Your task to perform on an android device: turn off notifications settings in the gmail app Image 0: 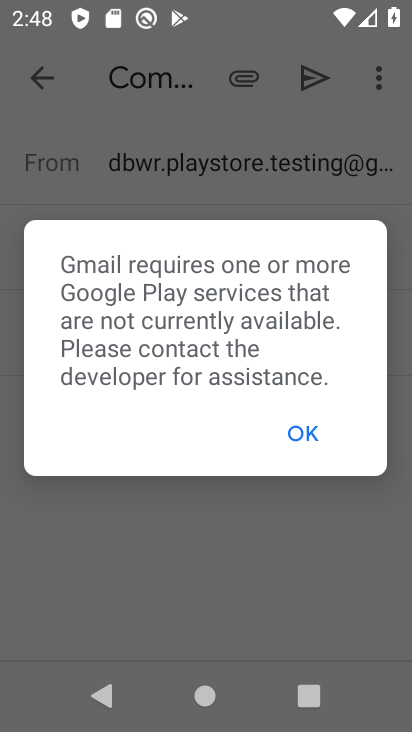
Step 0: click (301, 428)
Your task to perform on an android device: turn off notifications settings in the gmail app Image 1: 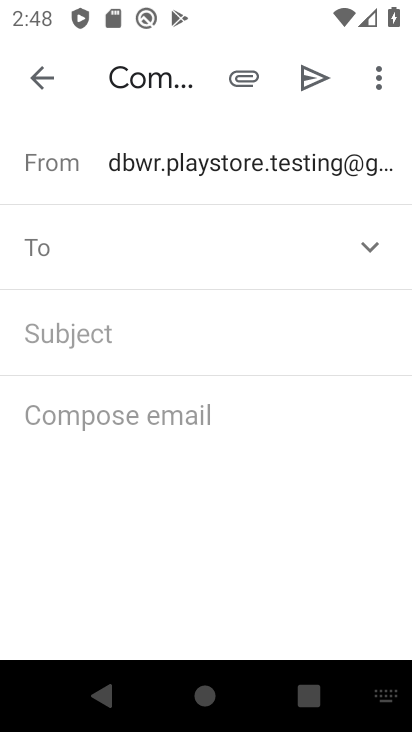
Step 1: click (42, 75)
Your task to perform on an android device: turn off notifications settings in the gmail app Image 2: 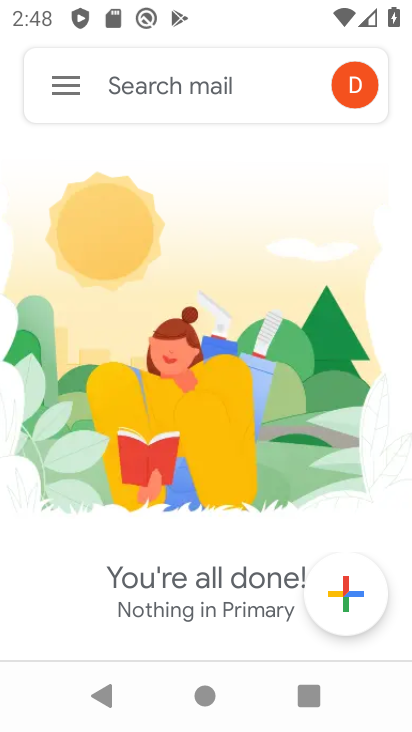
Step 2: press back button
Your task to perform on an android device: turn off notifications settings in the gmail app Image 3: 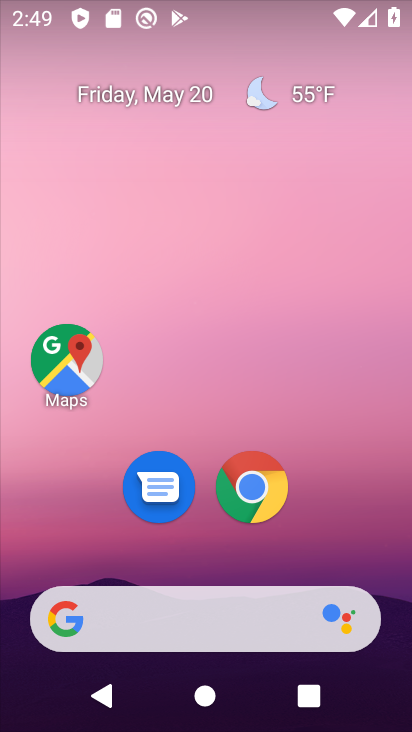
Step 3: drag from (360, 663) to (196, 62)
Your task to perform on an android device: turn off notifications settings in the gmail app Image 4: 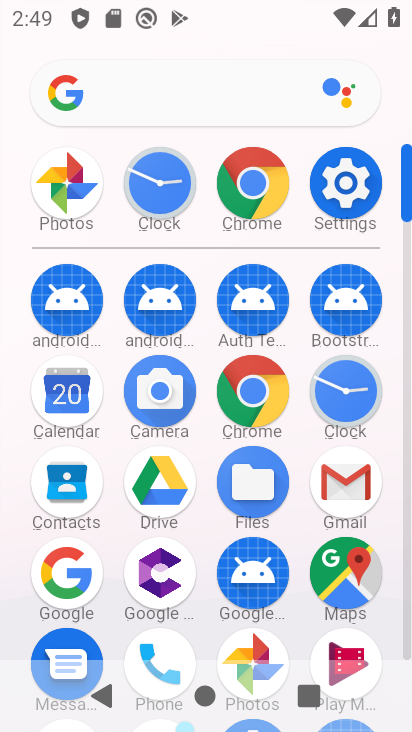
Step 4: click (349, 484)
Your task to perform on an android device: turn off notifications settings in the gmail app Image 5: 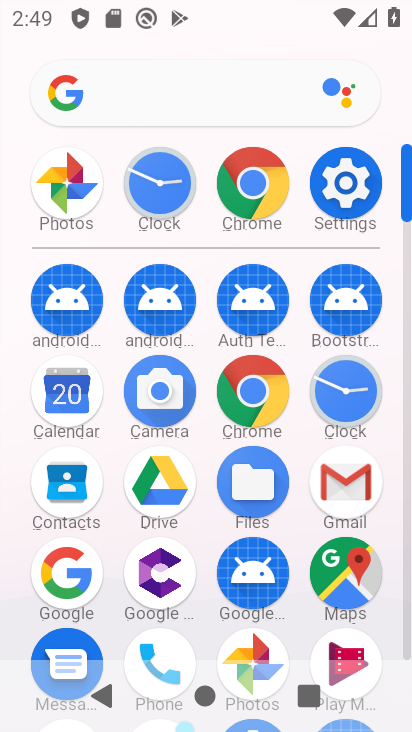
Step 5: click (350, 483)
Your task to perform on an android device: turn off notifications settings in the gmail app Image 6: 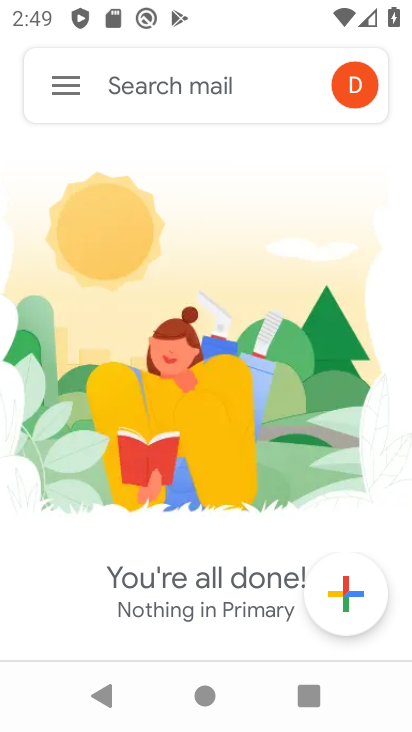
Step 6: click (70, 82)
Your task to perform on an android device: turn off notifications settings in the gmail app Image 7: 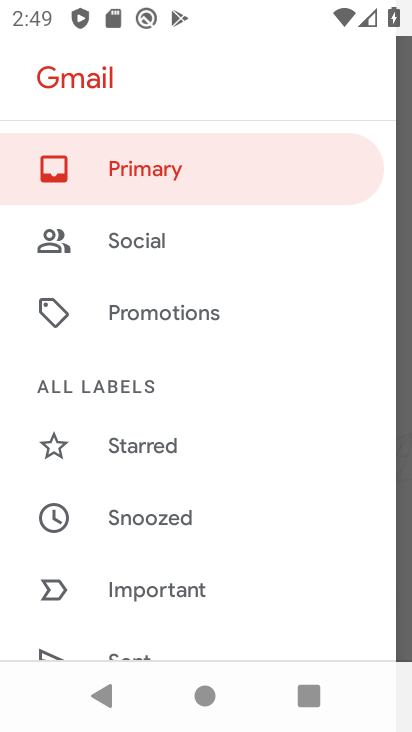
Step 7: drag from (232, 556) to (284, 125)
Your task to perform on an android device: turn off notifications settings in the gmail app Image 8: 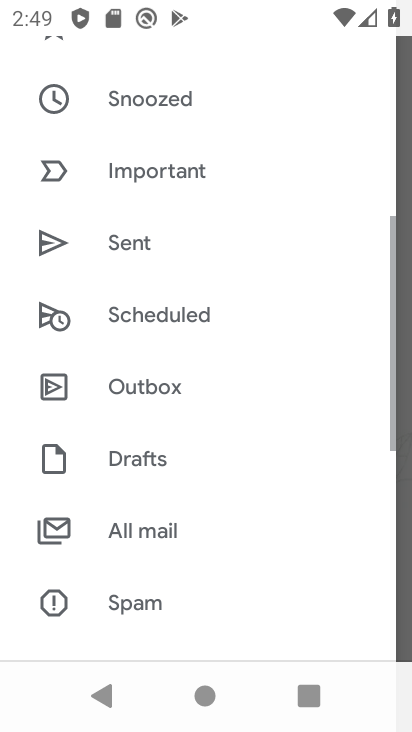
Step 8: drag from (357, 445) to (291, 7)
Your task to perform on an android device: turn off notifications settings in the gmail app Image 9: 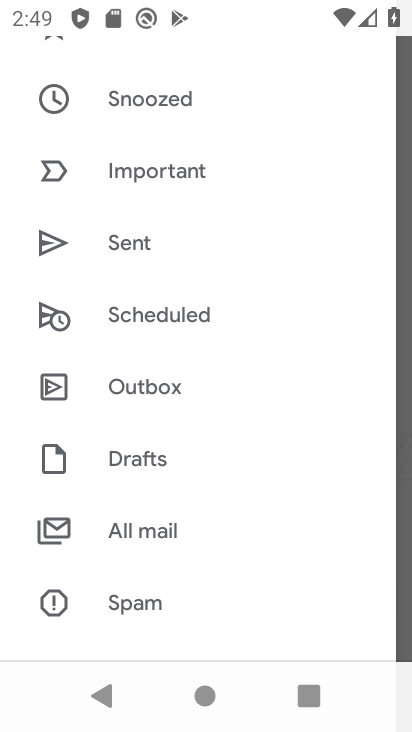
Step 9: press back button
Your task to perform on an android device: turn off notifications settings in the gmail app Image 10: 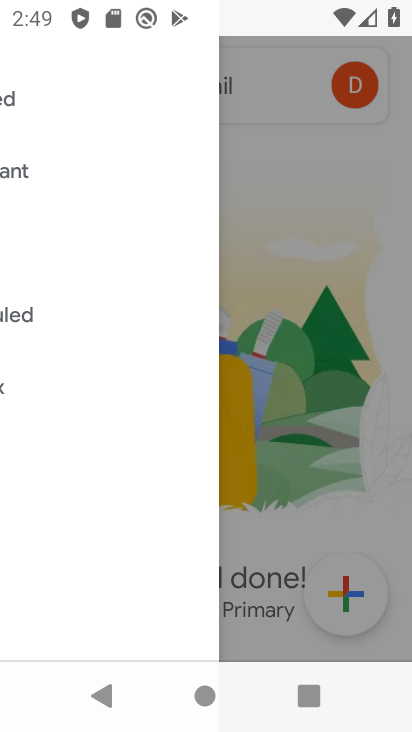
Step 10: press back button
Your task to perform on an android device: turn off notifications settings in the gmail app Image 11: 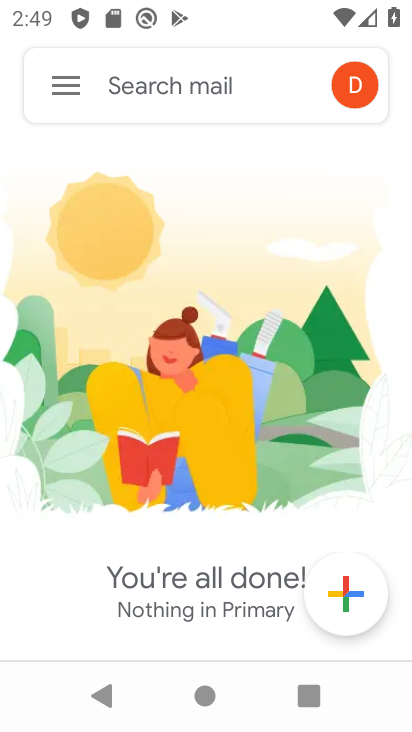
Step 11: press back button
Your task to perform on an android device: turn off notifications settings in the gmail app Image 12: 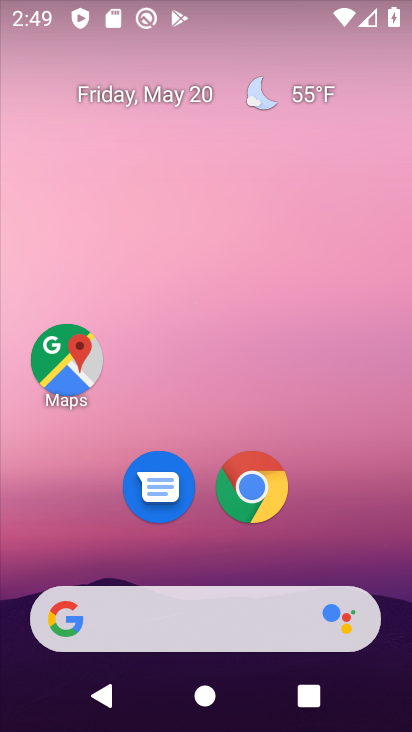
Step 12: drag from (282, 659) to (167, 24)
Your task to perform on an android device: turn off notifications settings in the gmail app Image 13: 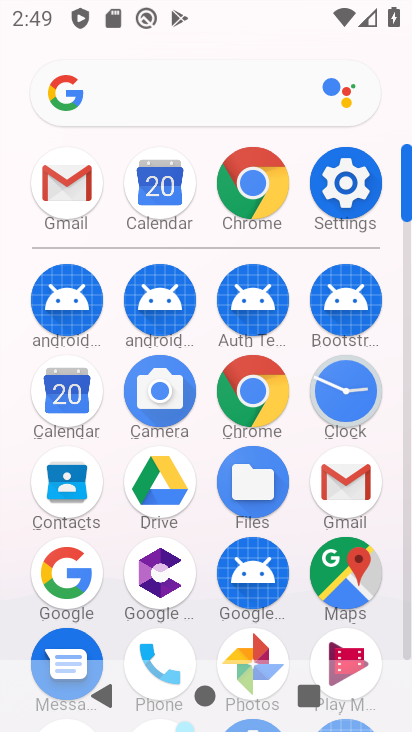
Step 13: click (339, 207)
Your task to perform on an android device: turn off notifications settings in the gmail app Image 14: 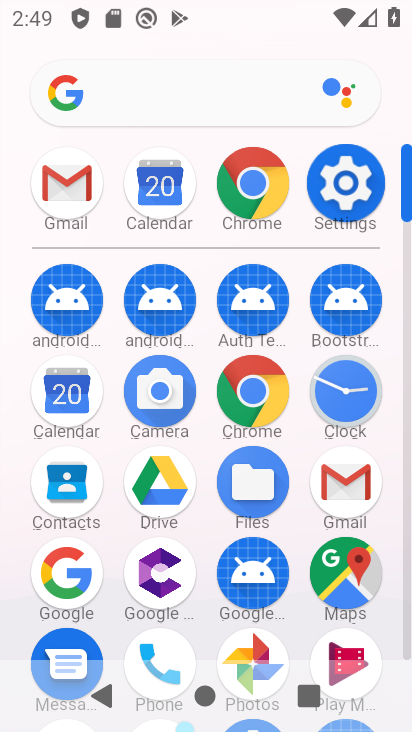
Step 14: click (346, 204)
Your task to perform on an android device: turn off notifications settings in the gmail app Image 15: 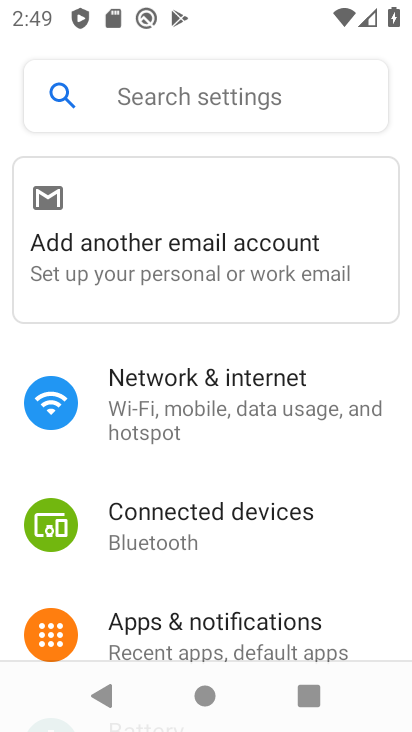
Step 15: press back button
Your task to perform on an android device: turn off notifications settings in the gmail app Image 16: 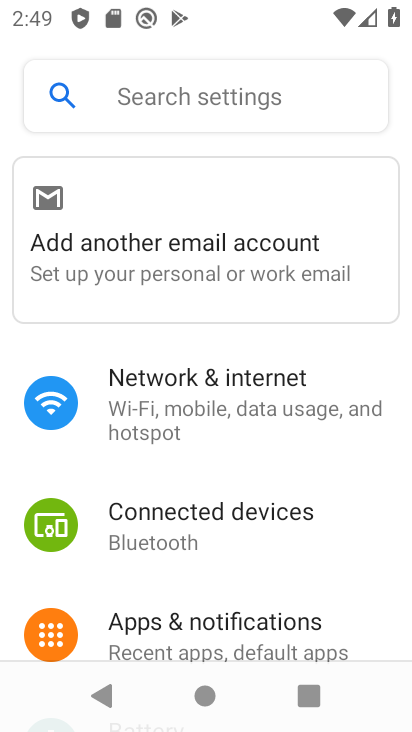
Step 16: press back button
Your task to perform on an android device: turn off notifications settings in the gmail app Image 17: 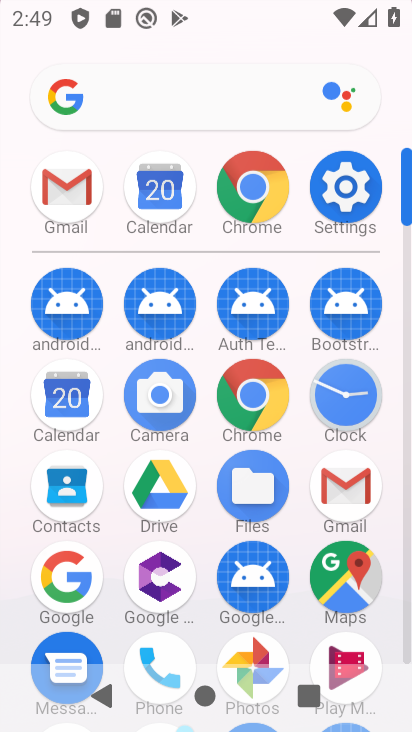
Step 17: press back button
Your task to perform on an android device: turn off notifications settings in the gmail app Image 18: 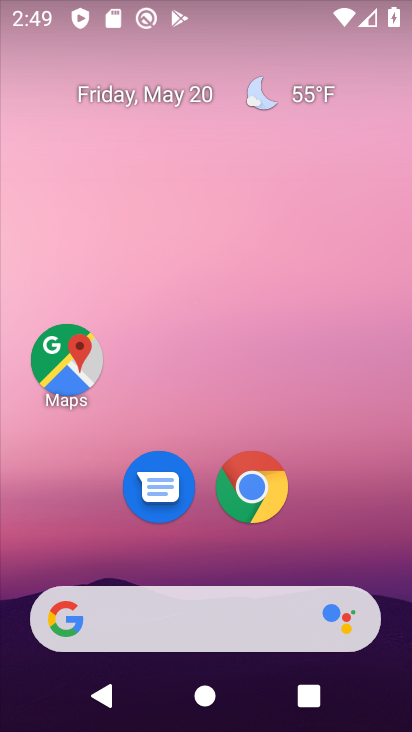
Step 18: click (356, 664)
Your task to perform on an android device: turn off notifications settings in the gmail app Image 19: 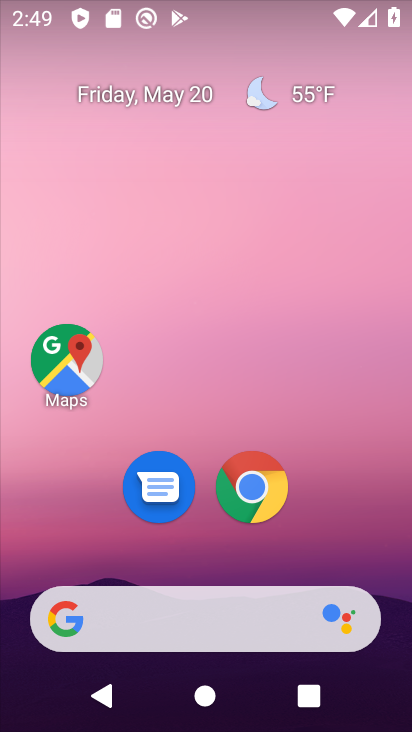
Step 19: drag from (256, 674) to (89, 0)
Your task to perform on an android device: turn off notifications settings in the gmail app Image 20: 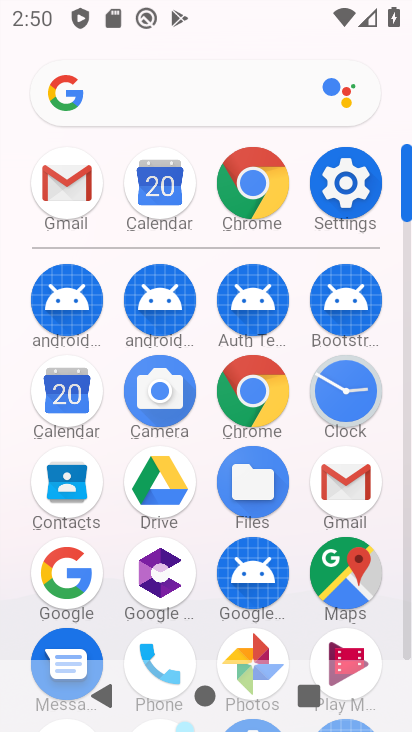
Step 20: click (331, 480)
Your task to perform on an android device: turn off notifications settings in the gmail app Image 21: 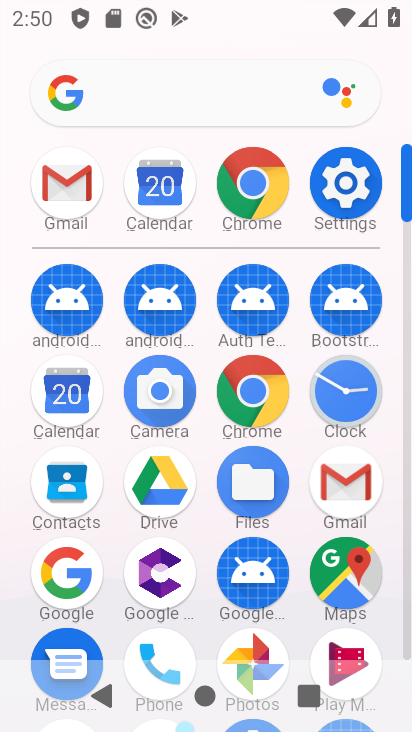
Step 21: click (331, 480)
Your task to perform on an android device: turn off notifications settings in the gmail app Image 22: 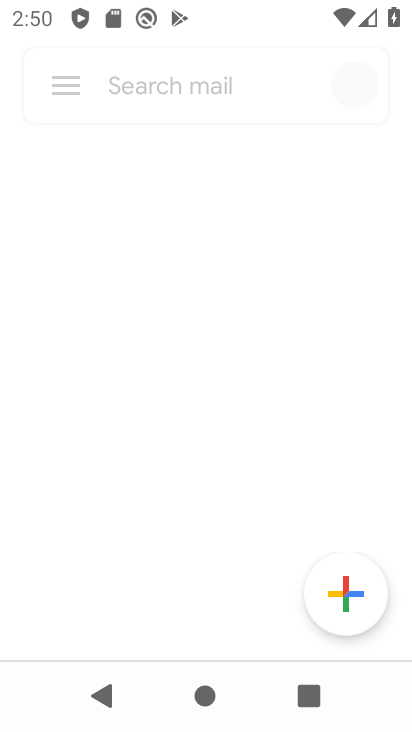
Step 22: click (331, 480)
Your task to perform on an android device: turn off notifications settings in the gmail app Image 23: 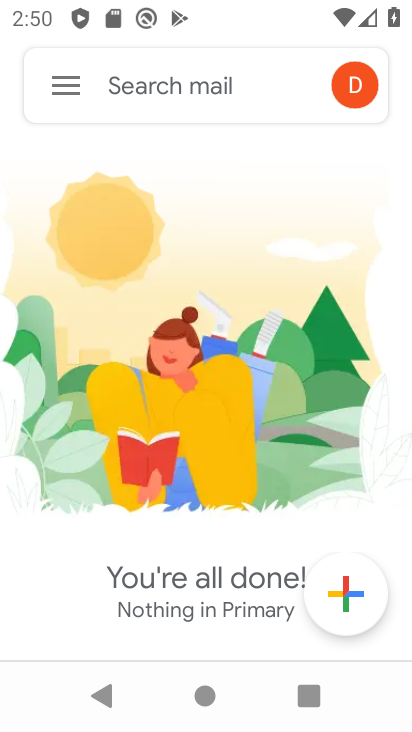
Step 23: click (55, 80)
Your task to perform on an android device: turn off notifications settings in the gmail app Image 24: 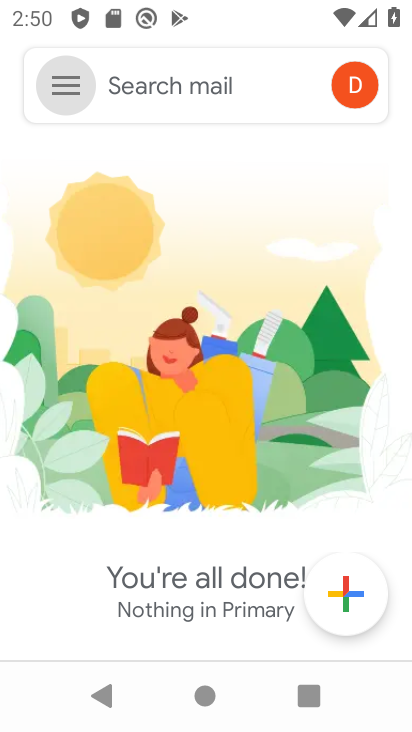
Step 24: click (55, 80)
Your task to perform on an android device: turn off notifications settings in the gmail app Image 25: 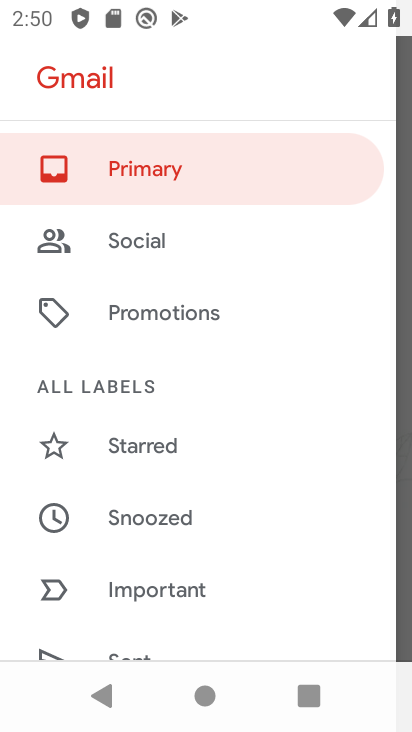
Step 25: drag from (172, 381) to (97, 3)
Your task to perform on an android device: turn off notifications settings in the gmail app Image 26: 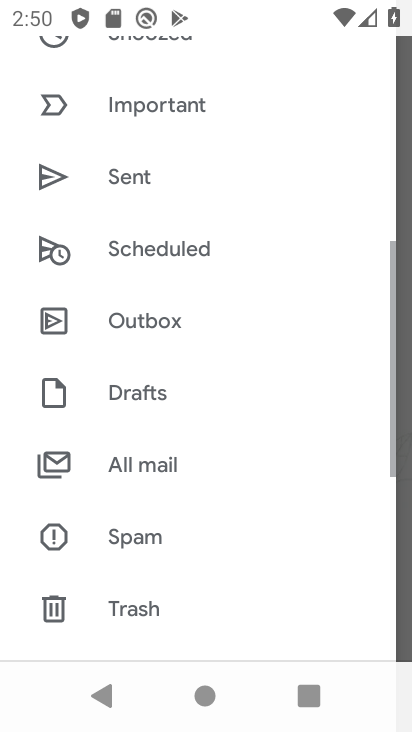
Step 26: drag from (132, 430) to (81, 109)
Your task to perform on an android device: turn off notifications settings in the gmail app Image 27: 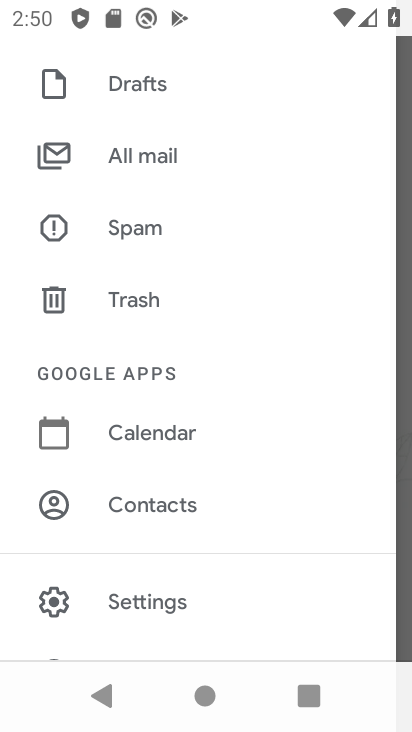
Step 27: click (148, 597)
Your task to perform on an android device: turn off notifications settings in the gmail app Image 28: 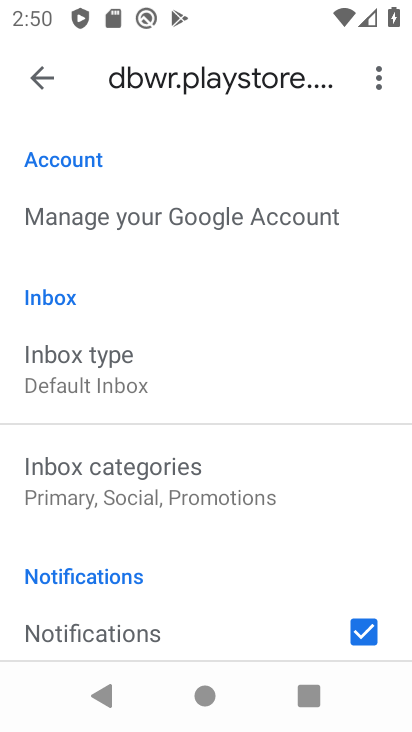
Step 28: drag from (130, 423) to (121, 123)
Your task to perform on an android device: turn off notifications settings in the gmail app Image 29: 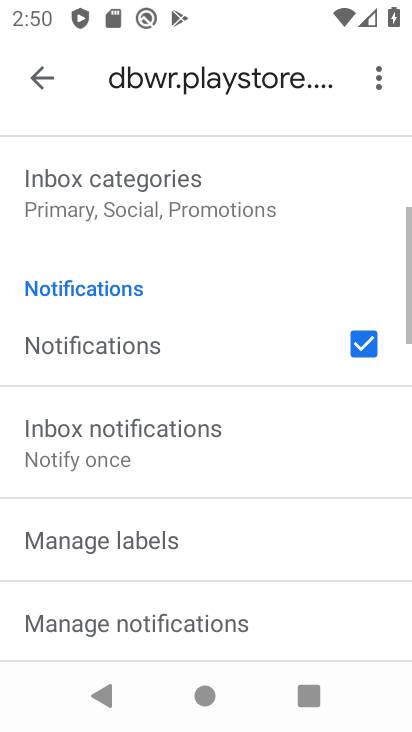
Step 29: drag from (136, 434) to (69, 109)
Your task to perform on an android device: turn off notifications settings in the gmail app Image 30: 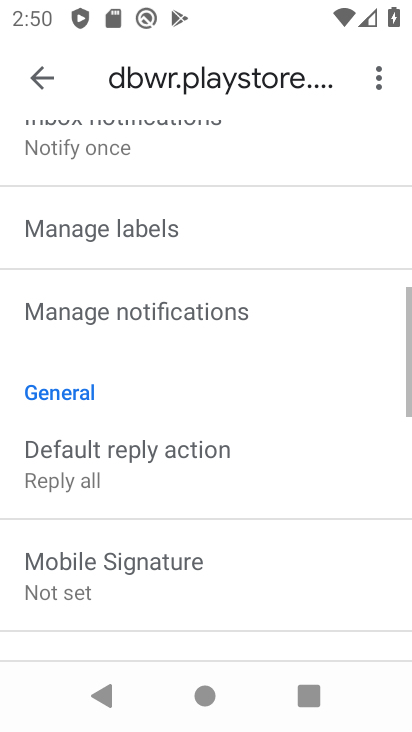
Step 30: drag from (111, 222) to (150, 423)
Your task to perform on an android device: turn off notifications settings in the gmail app Image 31: 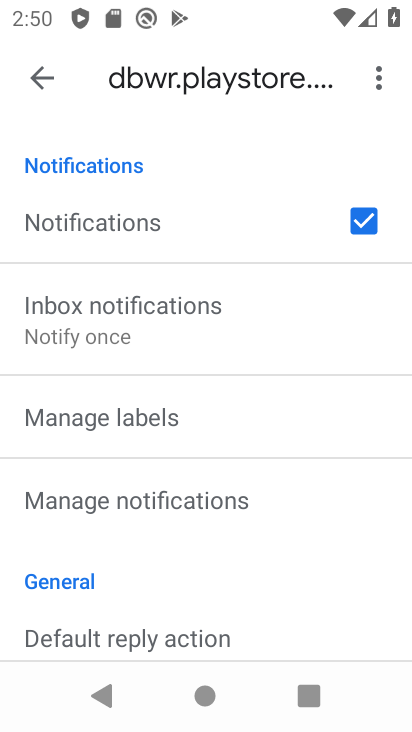
Step 31: click (82, 227)
Your task to perform on an android device: turn off notifications settings in the gmail app Image 32: 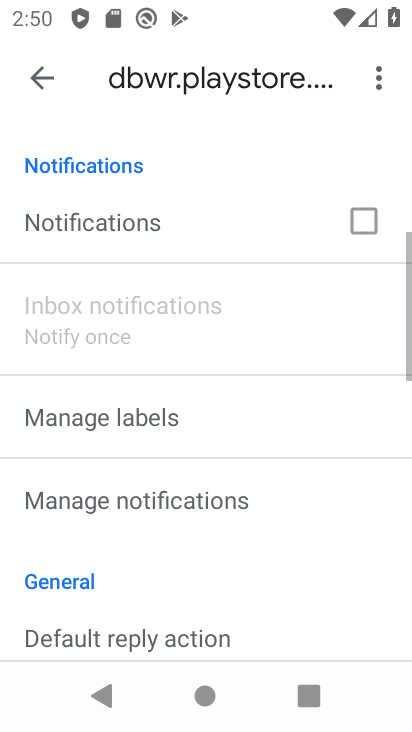
Step 32: click (82, 227)
Your task to perform on an android device: turn off notifications settings in the gmail app Image 33: 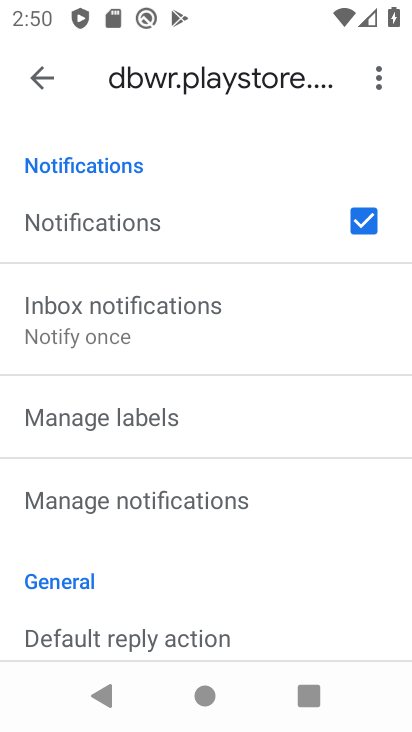
Step 33: click (82, 227)
Your task to perform on an android device: turn off notifications settings in the gmail app Image 34: 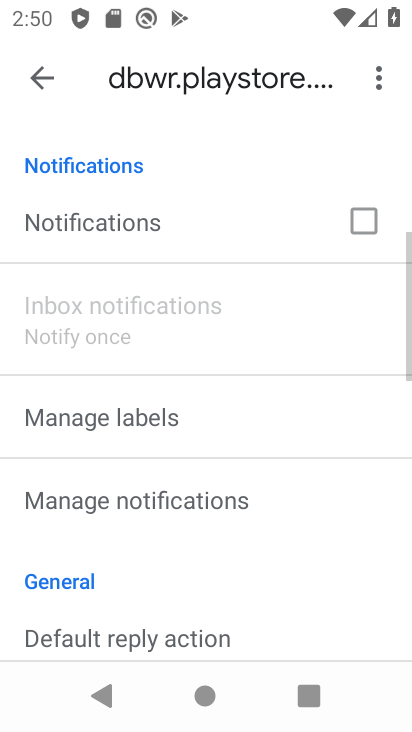
Step 34: task complete